Your task to perform on an android device: toggle show notifications on the lock screen Image 0: 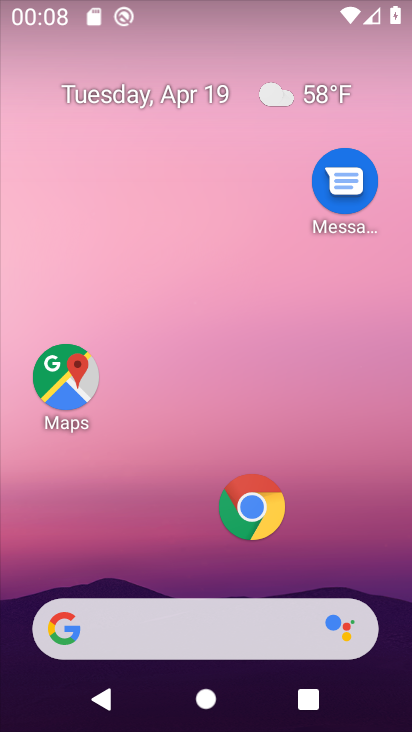
Step 0: drag from (168, 586) to (237, 3)
Your task to perform on an android device: toggle show notifications on the lock screen Image 1: 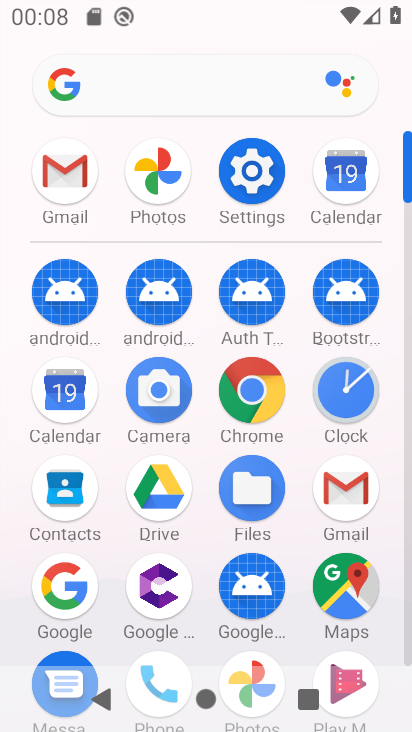
Step 1: click (237, 185)
Your task to perform on an android device: toggle show notifications on the lock screen Image 2: 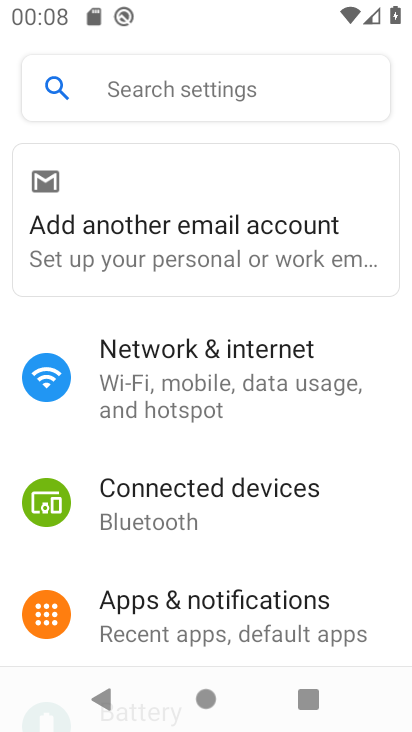
Step 2: click (228, 605)
Your task to perform on an android device: toggle show notifications on the lock screen Image 3: 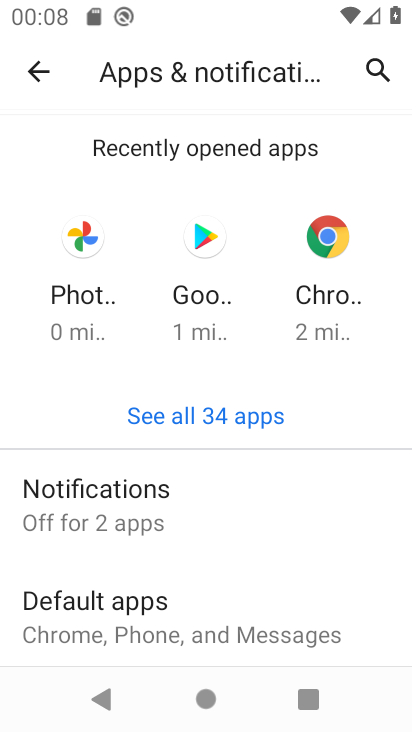
Step 3: click (145, 521)
Your task to perform on an android device: toggle show notifications on the lock screen Image 4: 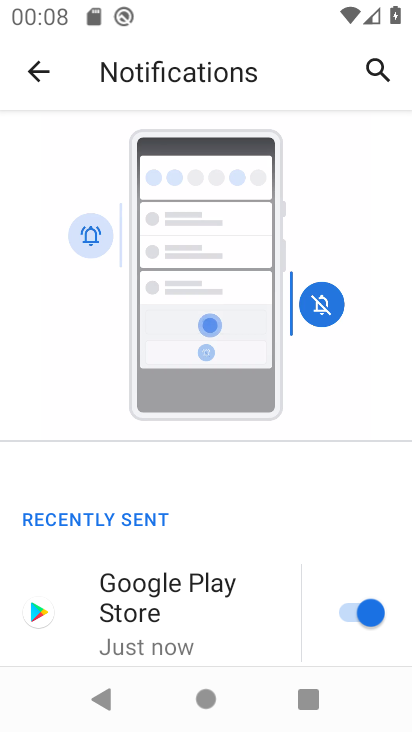
Step 4: drag from (195, 571) to (259, 162)
Your task to perform on an android device: toggle show notifications on the lock screen Image 5: 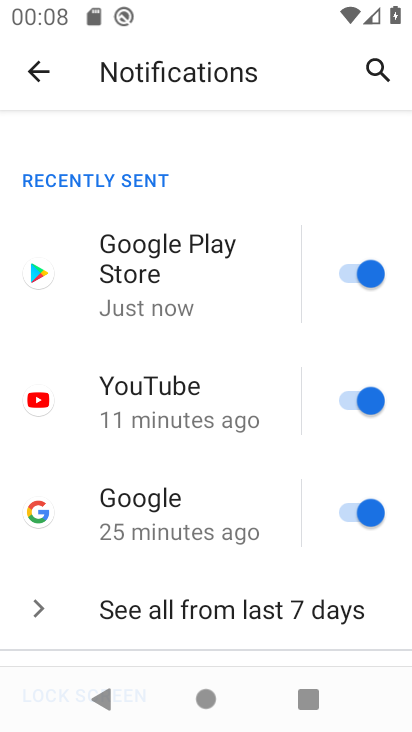
Step 5: drag from (177, 498) to (239, 109)
Your task to perform on an android device: toggle show notifications on the lock screen Image 6: 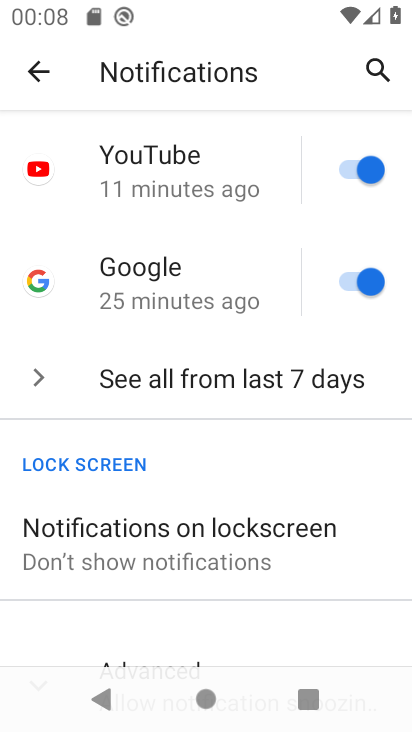
Step 6: click (165, 553)
Your task to perform on an android device: toggle show notifications on the lock screen Image 7: 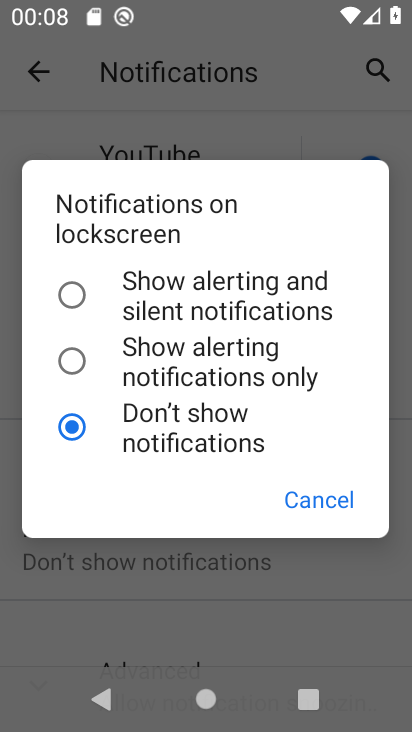
Step 7: click (84, 284)
Your task to perform on an android device: toggle show notifications on the lock screen Image 8: 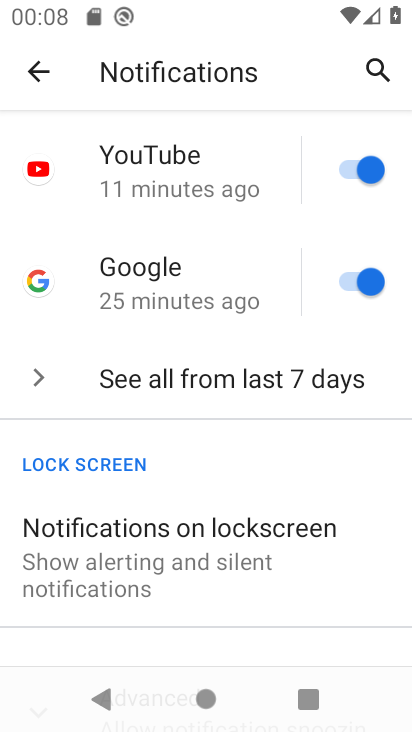
Step 8: task complete